Your task to perform on an android device: Go to Google Image 0: 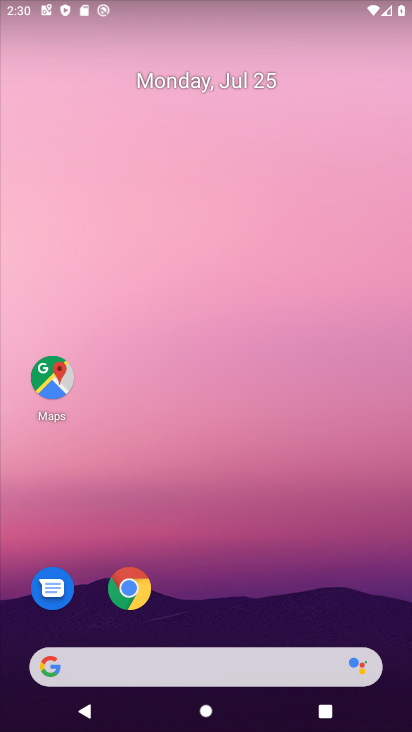
Step 0: drag from (178, 620) to (244, 250)
Your task to perform on an android device: Go to Google Image 1: 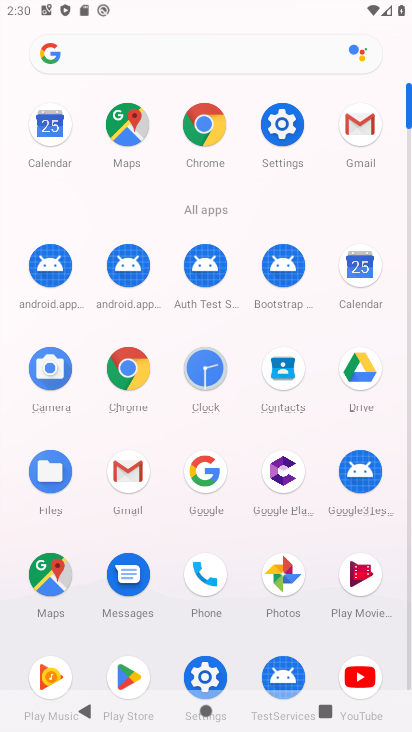
Step 1: click (194, 476)
Your task to perform on an android device: Go to Google Image 2: 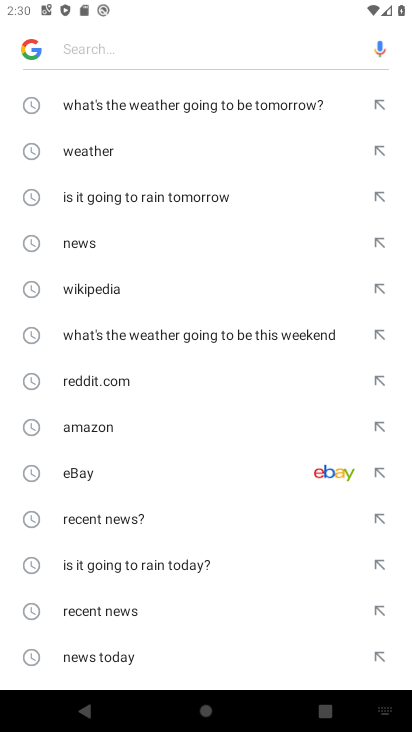
Step 2: task complete